Your task to perform on an android device: delete browsing data in the chrome app Image 0: 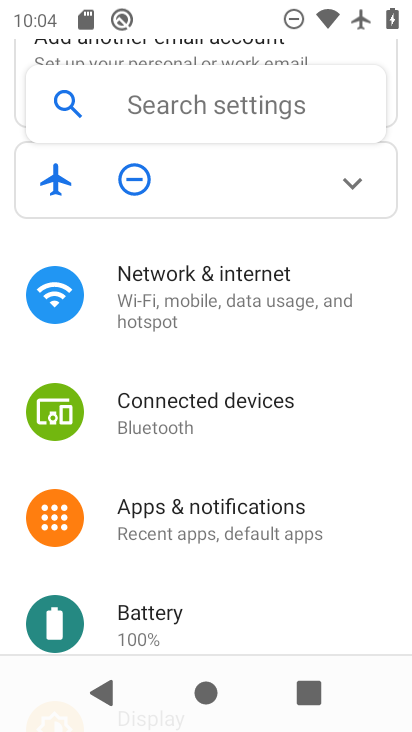
Step 0: press home button
Your task to perform on an android device: delete browsing data in the chrome app Image 1: 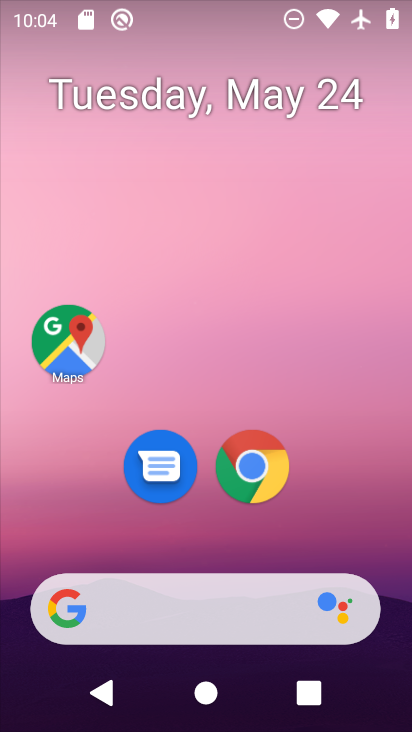
Step 1: click (229, 469)
Your task to perform on an android device: delete browsing data in the chrome app Image 2: 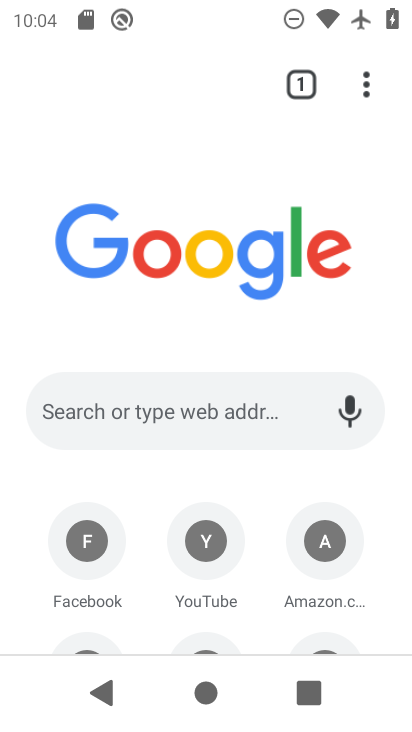
Step 2: click (360, 98)
Your task to perform on an android device: delete browsing data in the chrome app Image 3: 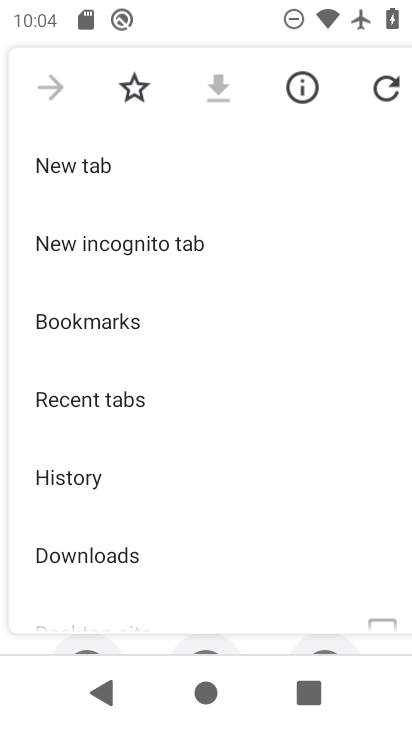
Step 3: click (76, 489)
Your task to perform on an android device: delete browsing data in the chrome app Image 4: 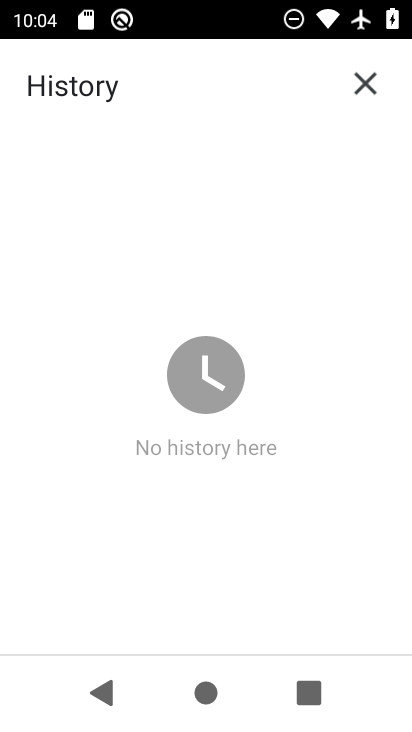
Step 4: task complete